Your task to perform on an android device: check out phone information Image 0: 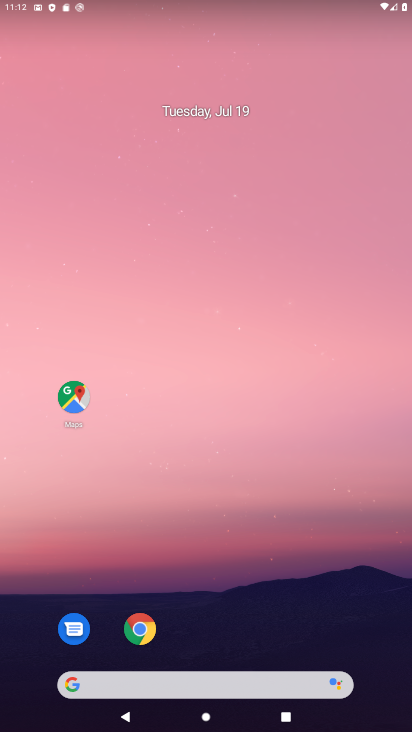
Step 0: drag from (241, 71) to (384, 589)
Your task to perform on an android device: check out phone information Image 1: 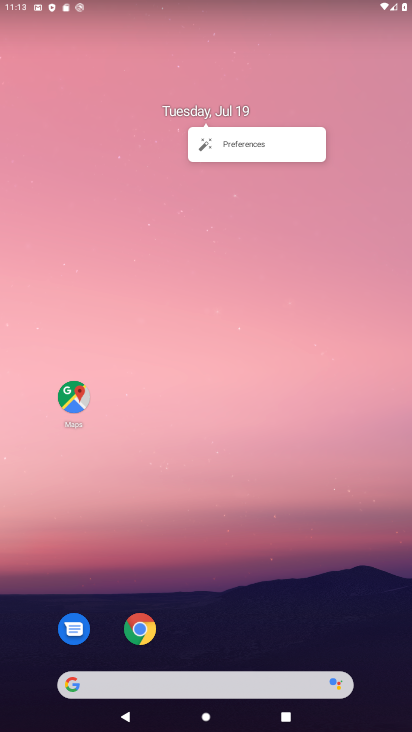
Step 1: drag from (239, 559) to (28, 104)
Your task to perform on an android device: check out phone information Image 2: 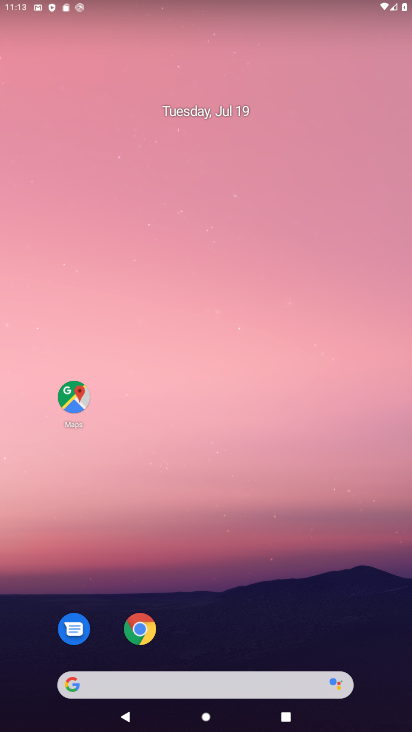
Step 2: drag from (333, 539) to (29, 26)
Your task to perform on an android device: check out phone information Image 3: 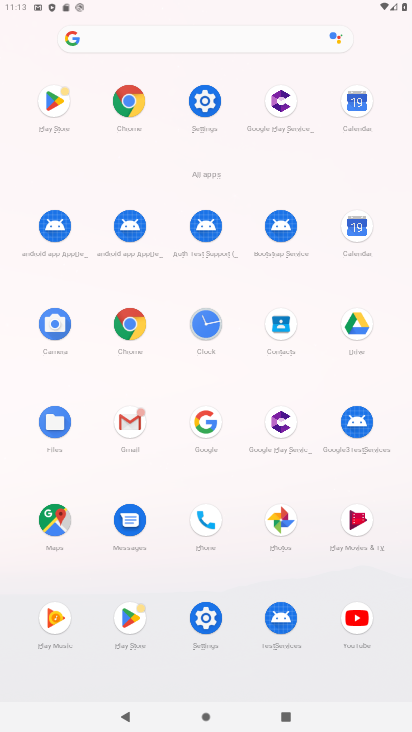
Step 3: click (209, 100)
Your task to perform on an android device: check out phone information Image 4: 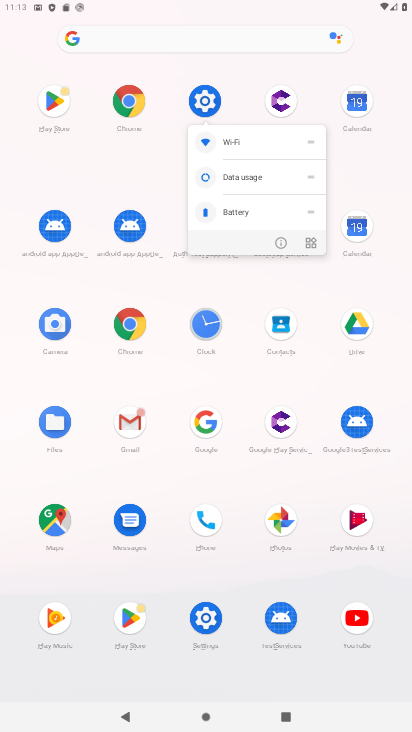
Step 4: click (209, 100)
Your task to perform on an android device: check out phone information Image 5: 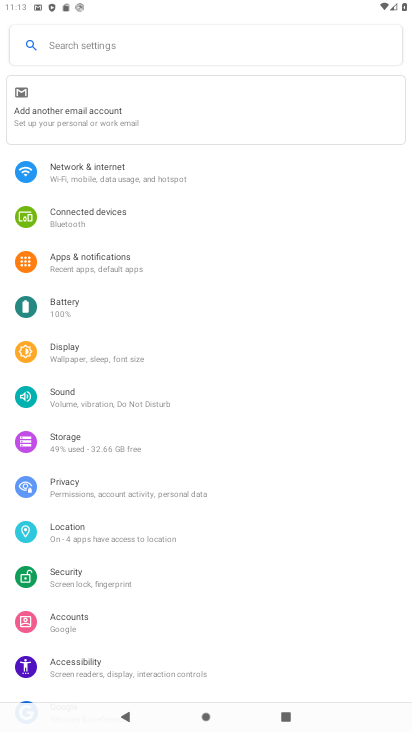
Step 5: drag from (191, 629) to (44, 106)
Your task to perform on an android device: check out phone information Image 6: 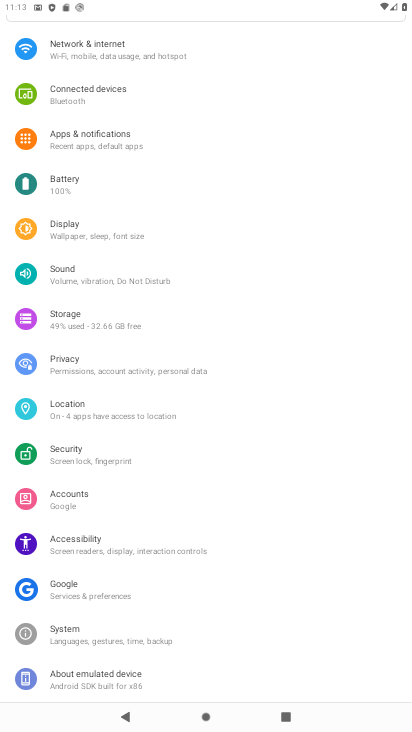
Step 6: drag from (55, 649) to (44, 164)
Your task to perform on an android device: check out phone information Image 7: 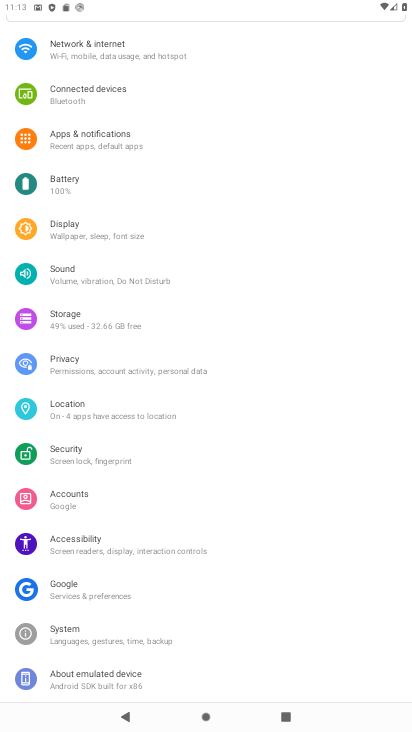
Step 7: click (86, 692)
Your task to perform on an android device: check out phone information Image 8: 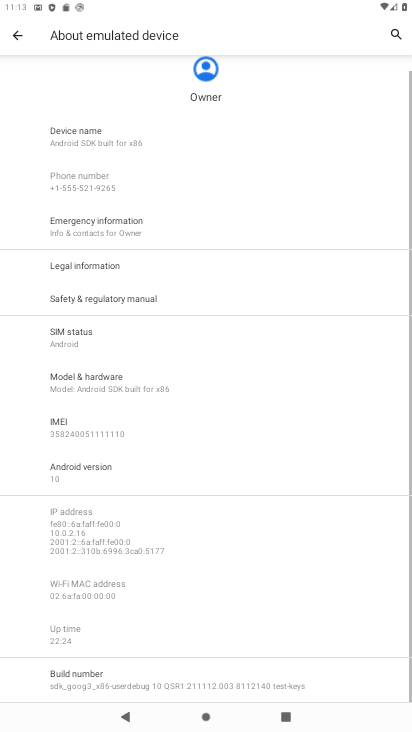
Step 8: task complete